Your task to perform on an android device: Go to Amazon Image 0: 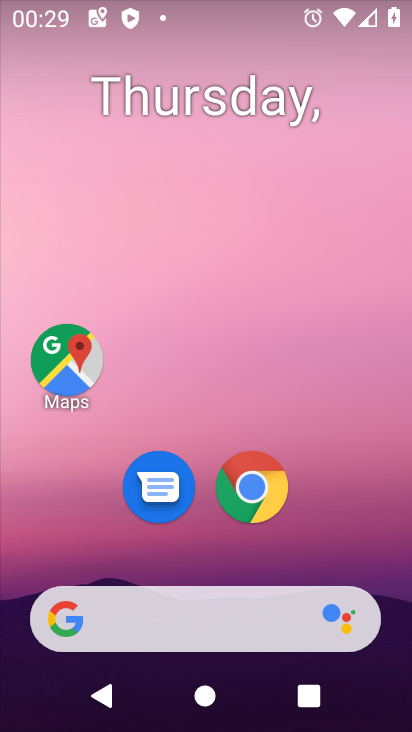
Step 0: click (252, 486)
Your task to perform on an android device: Go to Amazon Image 1: 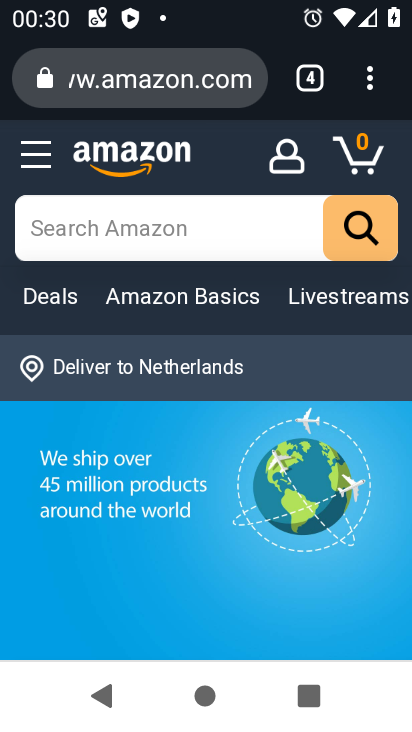
Step 1: task complete